Your task to perform on an android device: What is the recent news? Image 0: 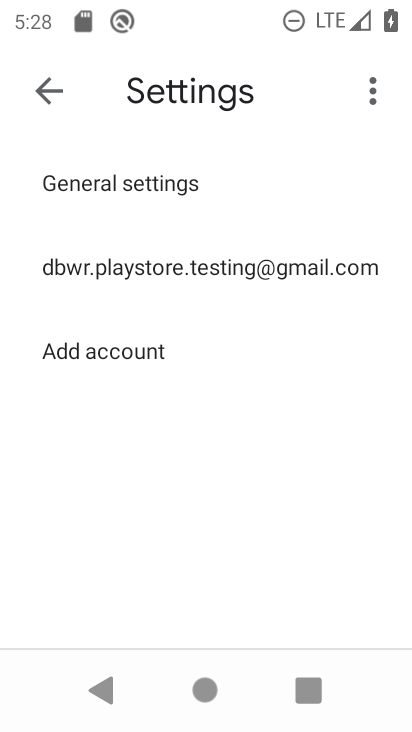
Step 0: press home button
Your task to perform on an android device: What is the recent news? Image 1: 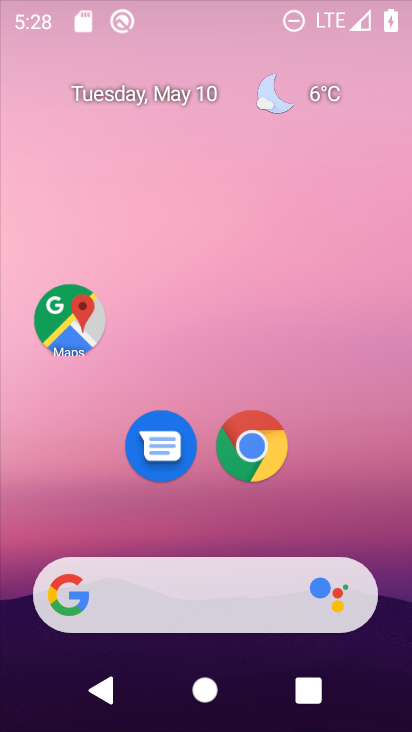
Step 1: drag from (320, 527) to (256, 98)
Your task to perform on an android device: What is the recent news? Image 2: 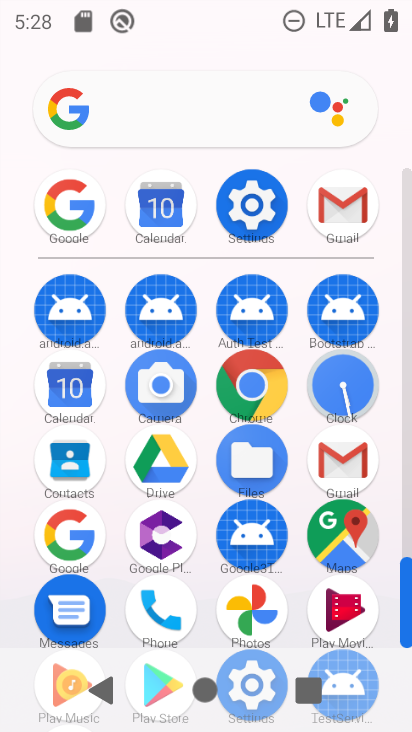
Step 2: click (76, 541)
Your task to perform on an android device: What is the recent news? Image 3: 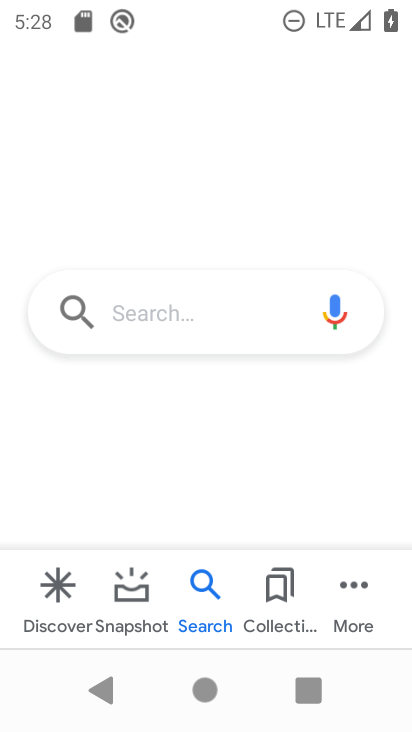
Step 3: click (168, 314)
Your task to perform on an android device: What is the recent news? Image 4: 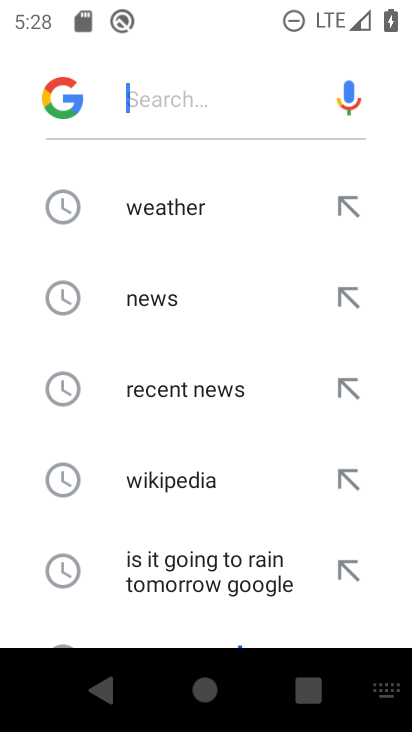
Step 4: click (180, 294)
Your task to perform on an android device: What is the recent news? Image 5: 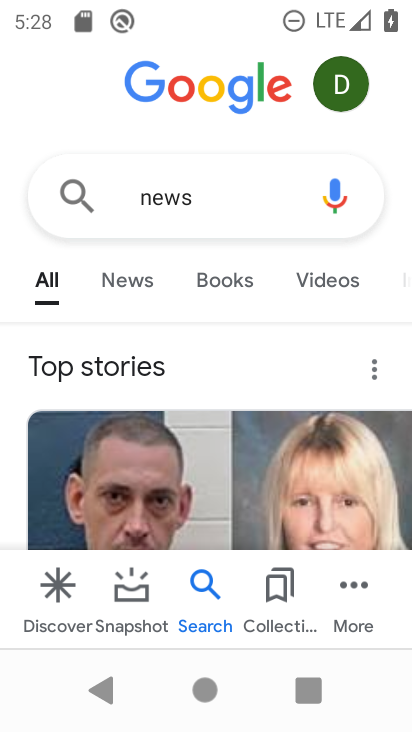
Step 5: click (116, 268)
Your task to perform on an android device: What is the recent news? Image 6: 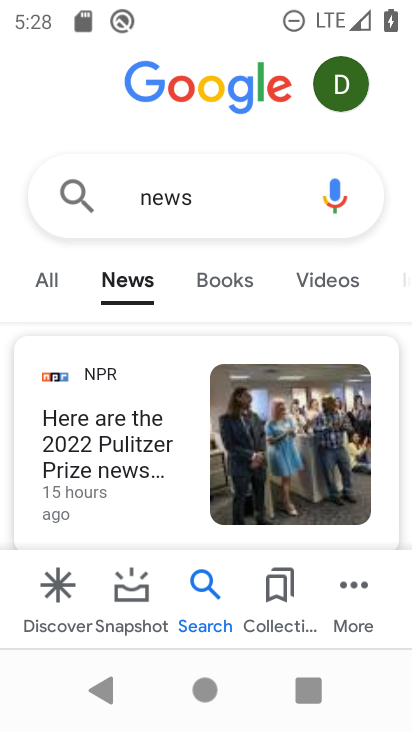
Step 6: task complete